Your task to perform on an android device: toggle priority inbox in the gmail app Image 0: 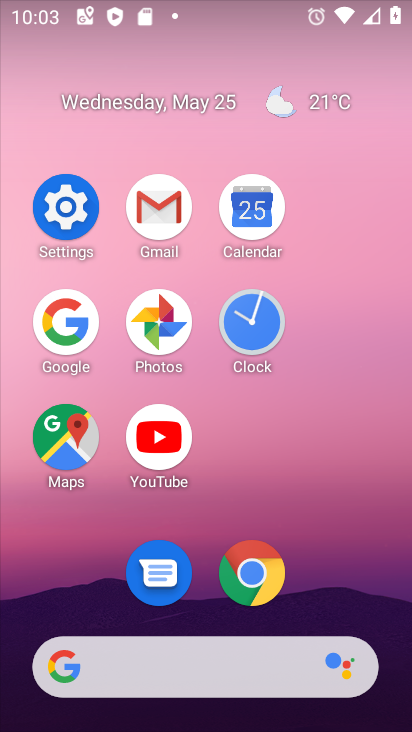
Step 0: click (175, 223)
Your task to perform on an android device: toggle priority inbox in the gmail app Image 1: 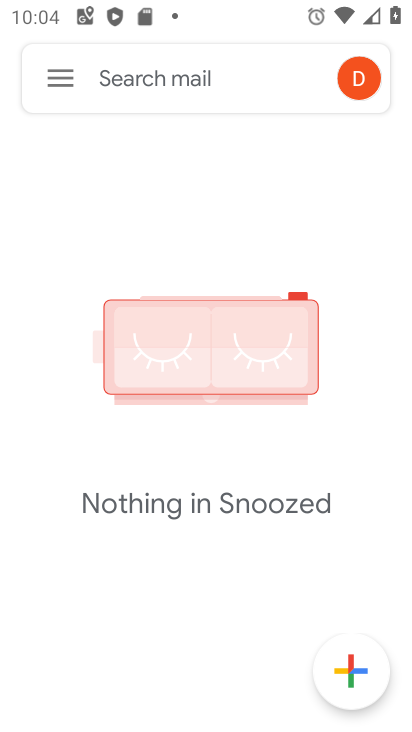
Step 1: click (60, 106)
Your task to perform on an android device: toggle priority inbox in the gmail app Image 2: 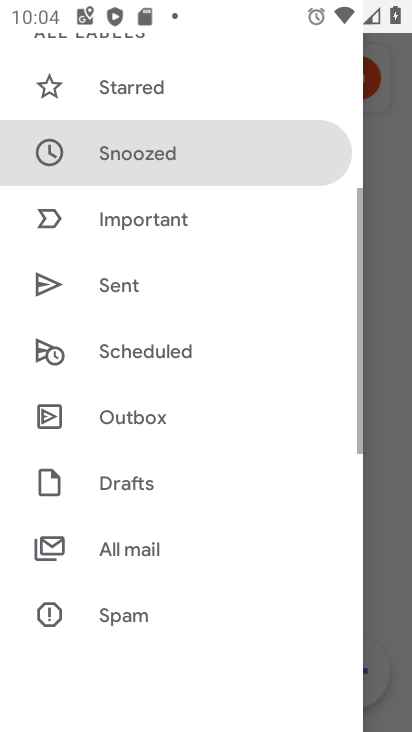
Step 2: drag from (279, 568) to (270, 58)
Your task to perform on an android device: toggle priority inbox in the gmail app Image 3: 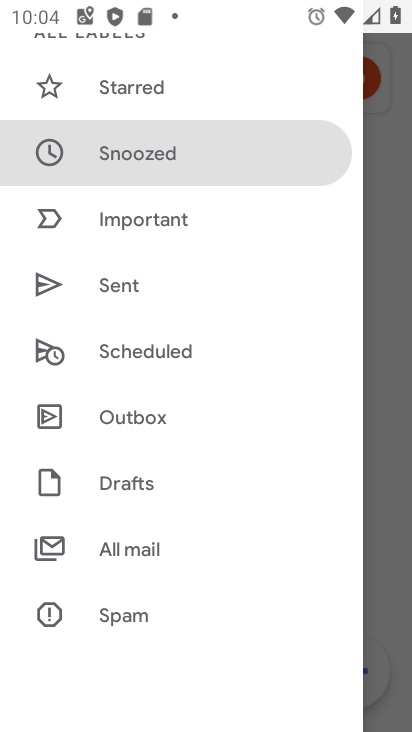
Step 3: drag from (175, 596) to (195, 254)
Your task to perform on an android device: toggle priority inbox in the gmail app Image 4: 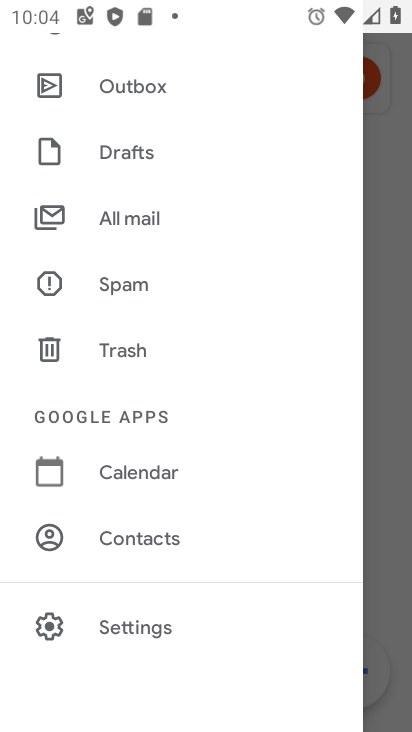
Step 4: click (112, 628)
Your task to perform on an android device: toggle priority inbox in the gmail app Image 5: 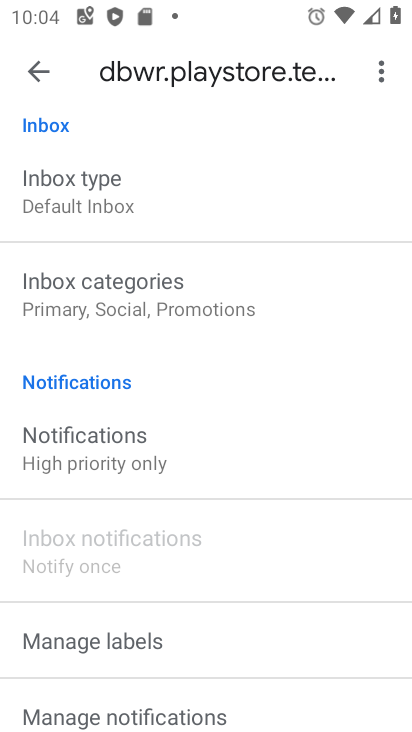
Step 5: click (94, 205)
Your task to perform on an android device: toggle priority inbox in the gmail app Image 6: 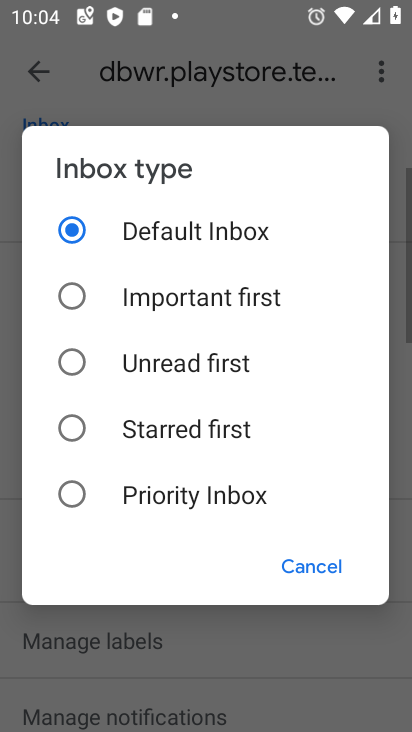
Step 6: click (153, 501)
Your task to perform on an android device: toggle priority inbox in the gmail app Image 7: 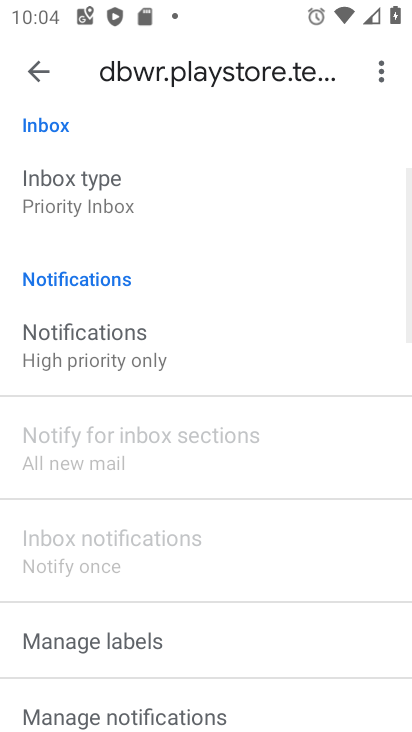
Step 7: task complete